Your task to perform on an android device: Add lg ultragear to the cart on bestbuy Image 0: 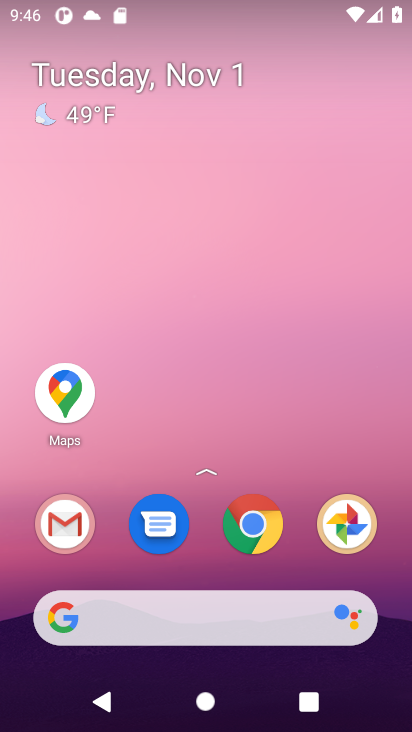
Step 0: press home button
Your task to perform on an android device: Add lg ultragear to the cart on bestbuy Image 1: 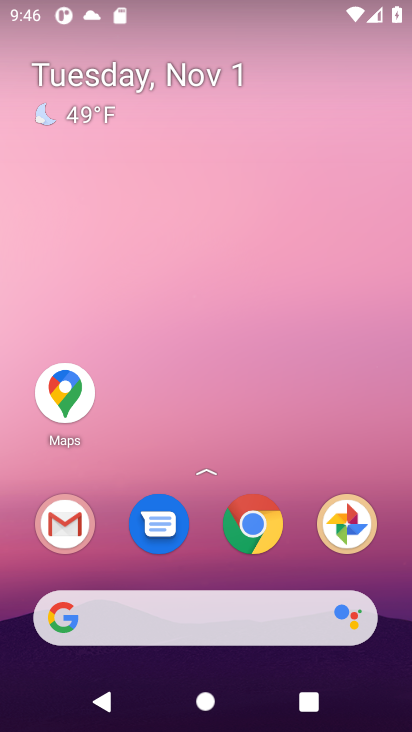
Step 1: click (102, 611)
Your task to perform on an android device: Add lg ultragear to the cart on bestbuy Image 2: 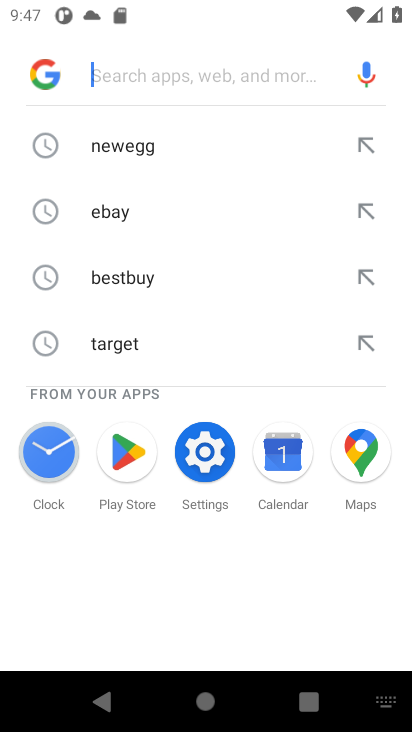
Step 2: type "bestbuy"
Your task to perform on an android device: Add lg ultragear to the cart on bestbuy Image 3: 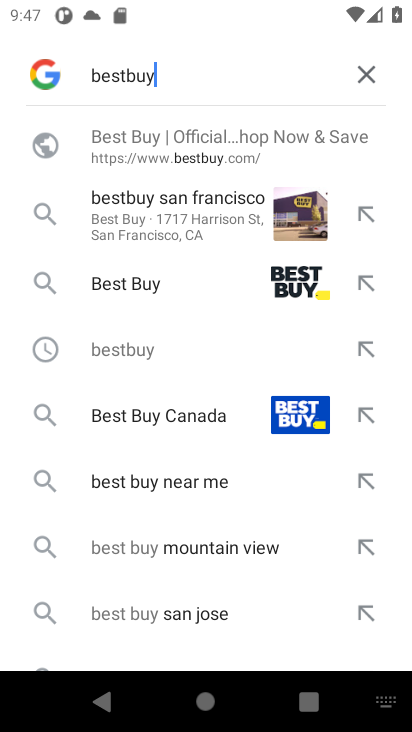
Step 3: press enter
Your task to perform on an android device: Add lg ultragear to the cart on bestbuy Image 4: 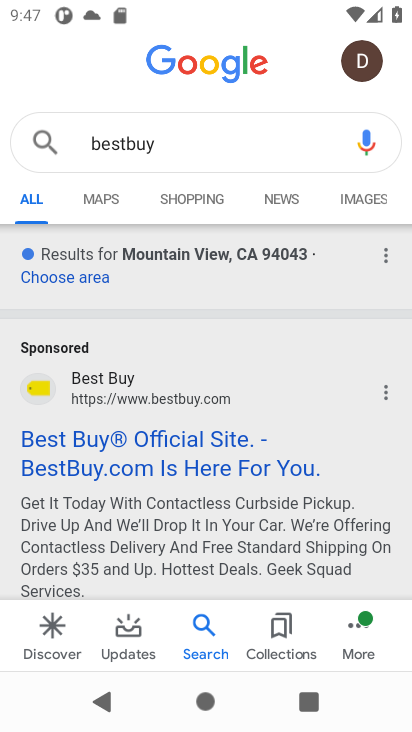
Step 4: click (143, 456)
Your task to perform on an android device: Add lg ultragear to the cart on bestbuy Image 5: 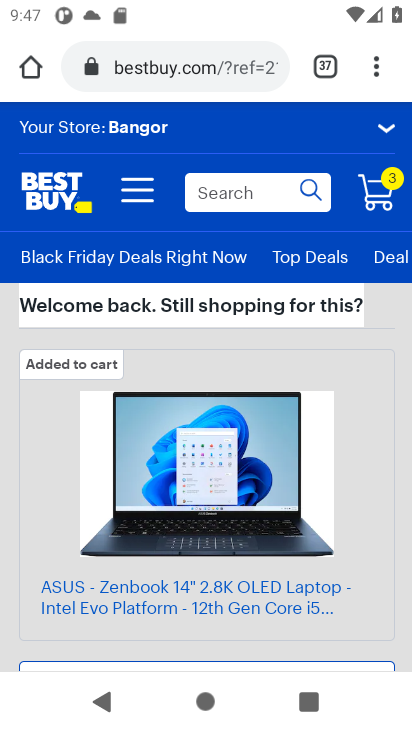
Step 5: click (209, 186)
Your task to perform on an android device: Add lg ultragear to the cart on bestbuy Image 6: 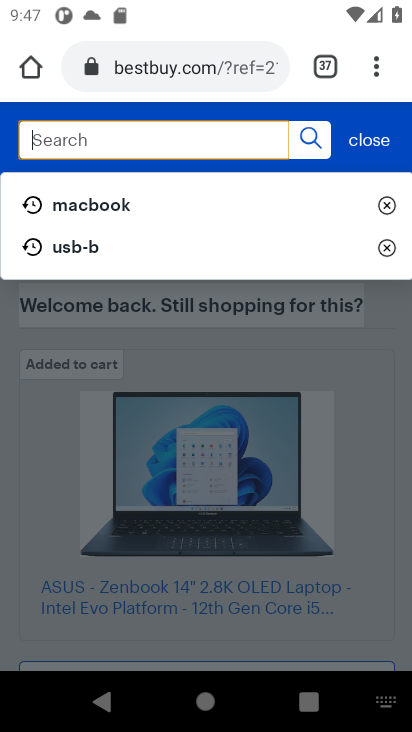
Step 6: press enter
Your task to perform on an android device: Add lg ultragear to the cart on bestbuy Image 7: 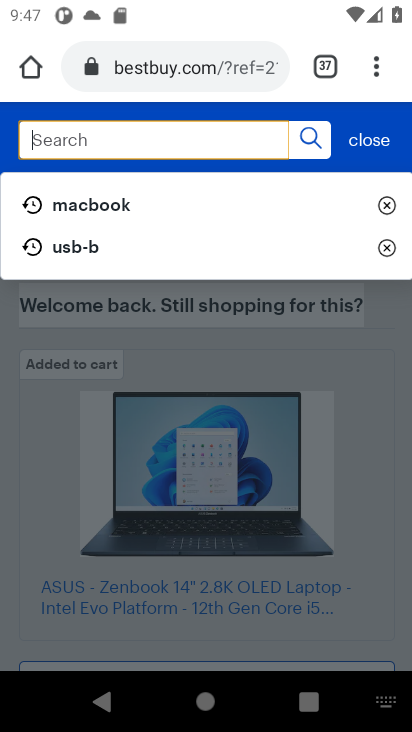
Step 7: type " lg ultragear"
Your task to perform on an android device: Add lg ultragear to the cart on bestbuy Image 8: 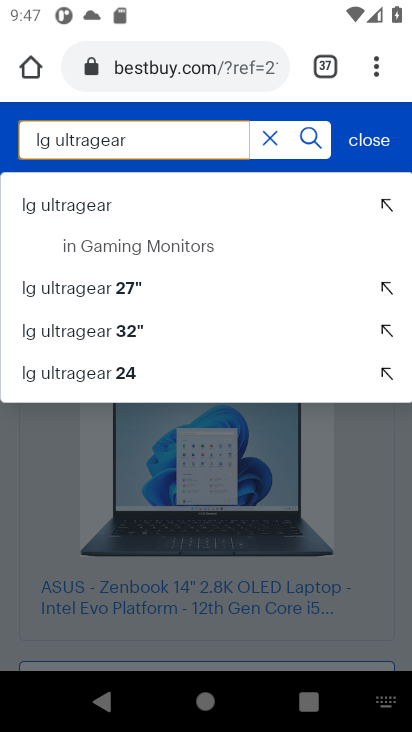
Step 8: click (311, 131)
Your task to perform on an android device: Add lg ultragear to the cart on bestbuy Image 9: 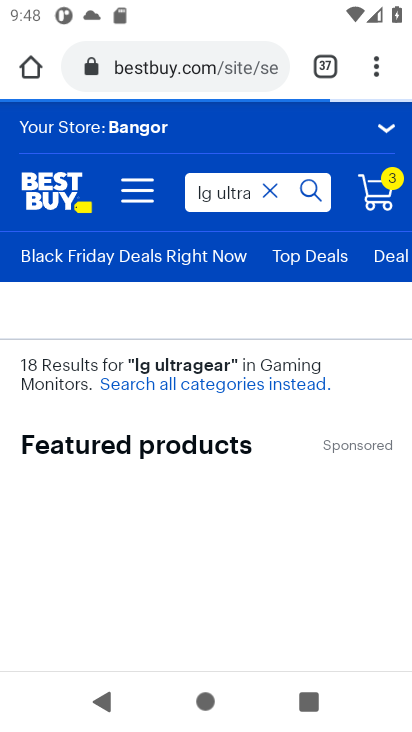
Step 9: drag from (209, 585) to (224, 272)
Your task to perform on an android device: Add lg ultragear to the cart on bestbuy Image 10: 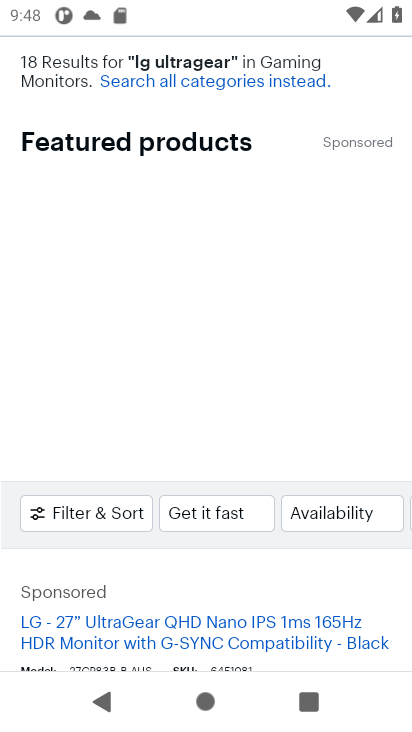
Step 10: drag from (215, 611) to (250, 143)
Your task to perform on an android device: Add lg ultragear to the cart on bestbuy Image 11: 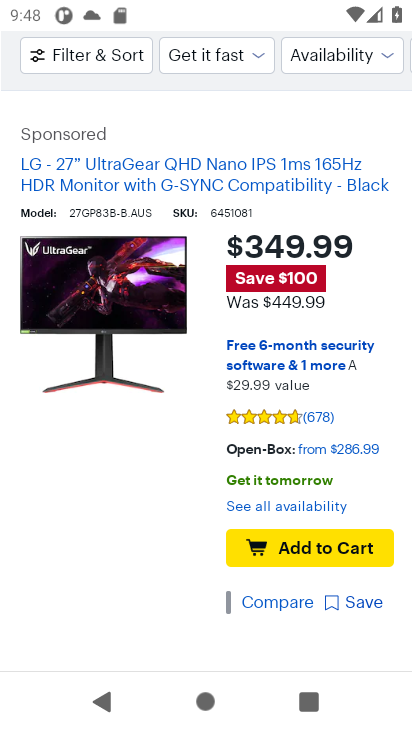
Step 11: click (297, 546)
Your task to perform on an android device: Add lg ultragear to the cart on bestbuy Image 12: 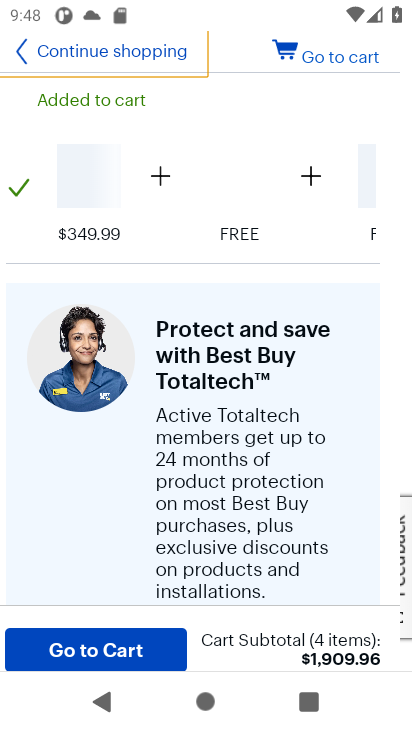
Step 12: task complete